Your task to perform on an android device: snooze an email in the gmail app Image 0: 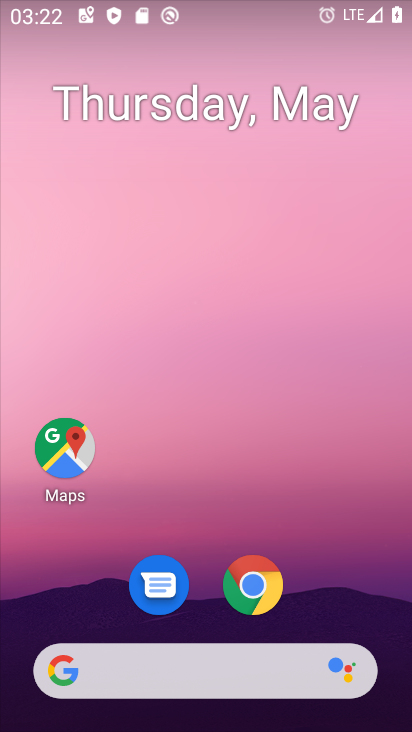
Step 0: drag from (240, 464) to (221, 70)
Your task to perform on an android device: snooze an email in the gmail app Image 1: 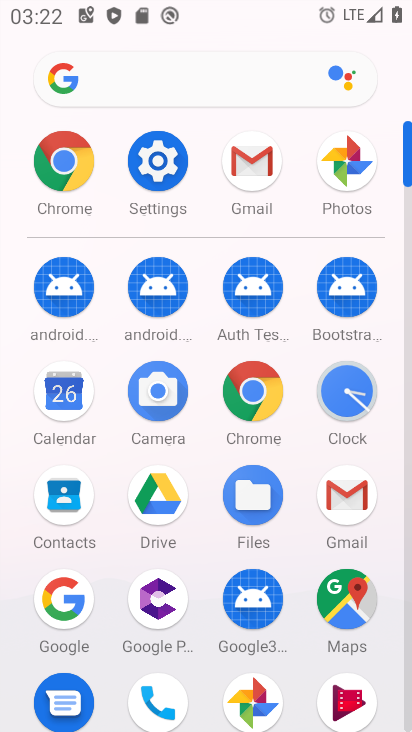
Step 1: click (252, 165)
Your task to perform on an android device: snooze an email in the gmail app Image 2: 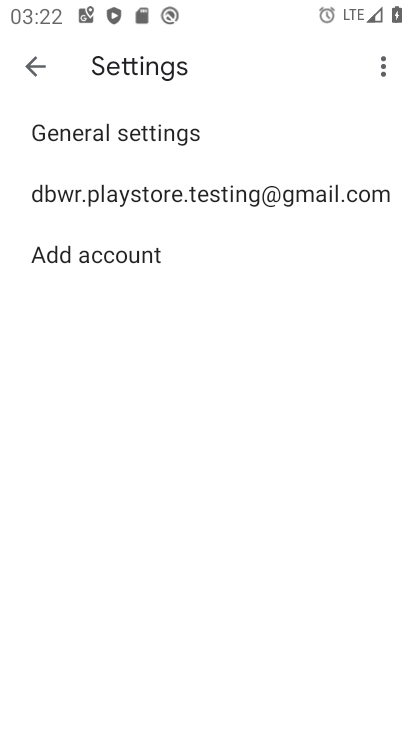
Step 2: click (44, 61)
Your task to perform on an android device: snooze an email in the gmail app Image 3: 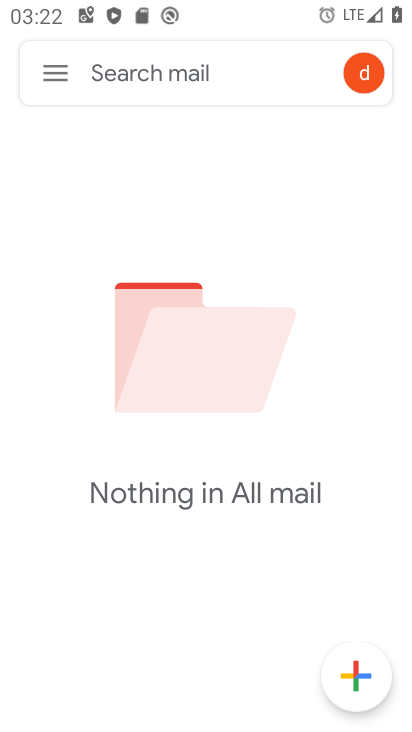
Step 3: task complete